Your task to perform on an android device: Open sound settings Image 0: 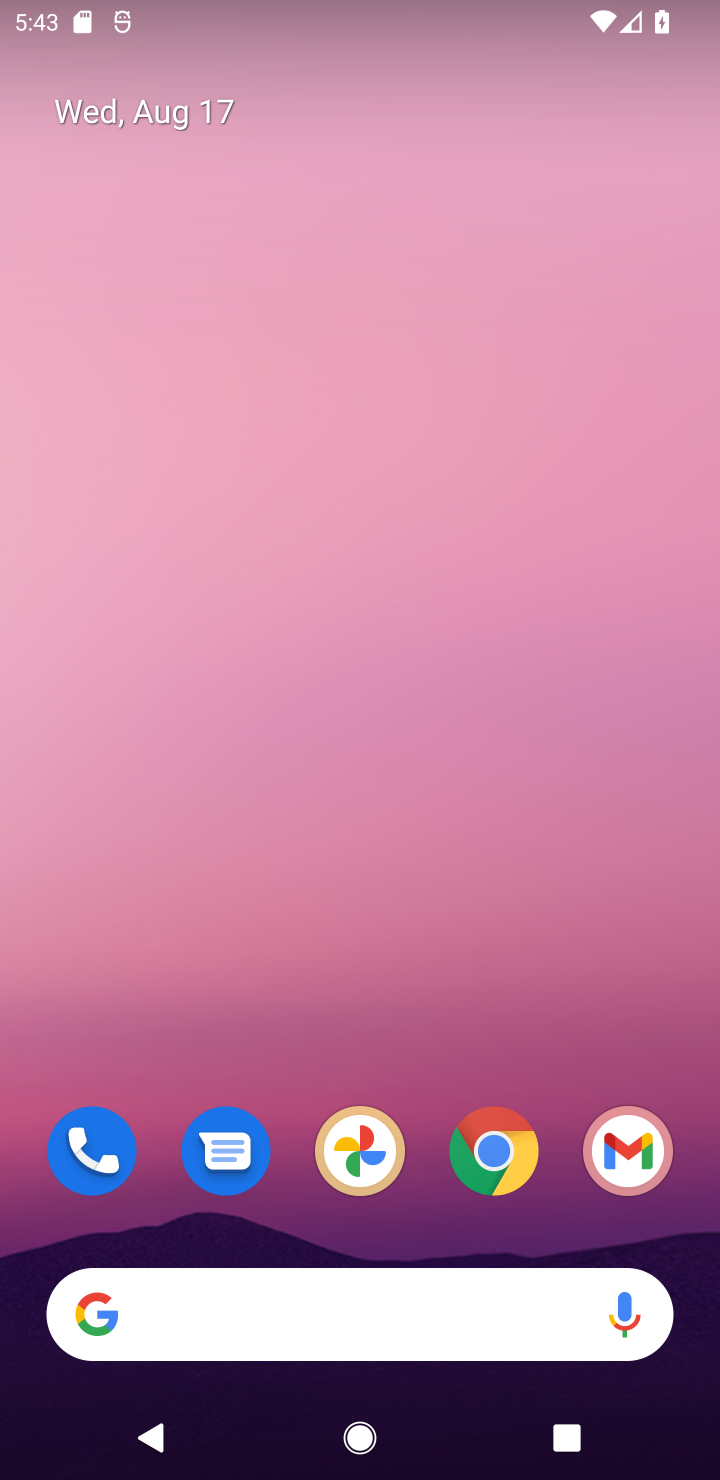
Step 0: drag from (429, 1219) to (556, 83)
Your task to perform on an android device: Open sound settings Image 1: 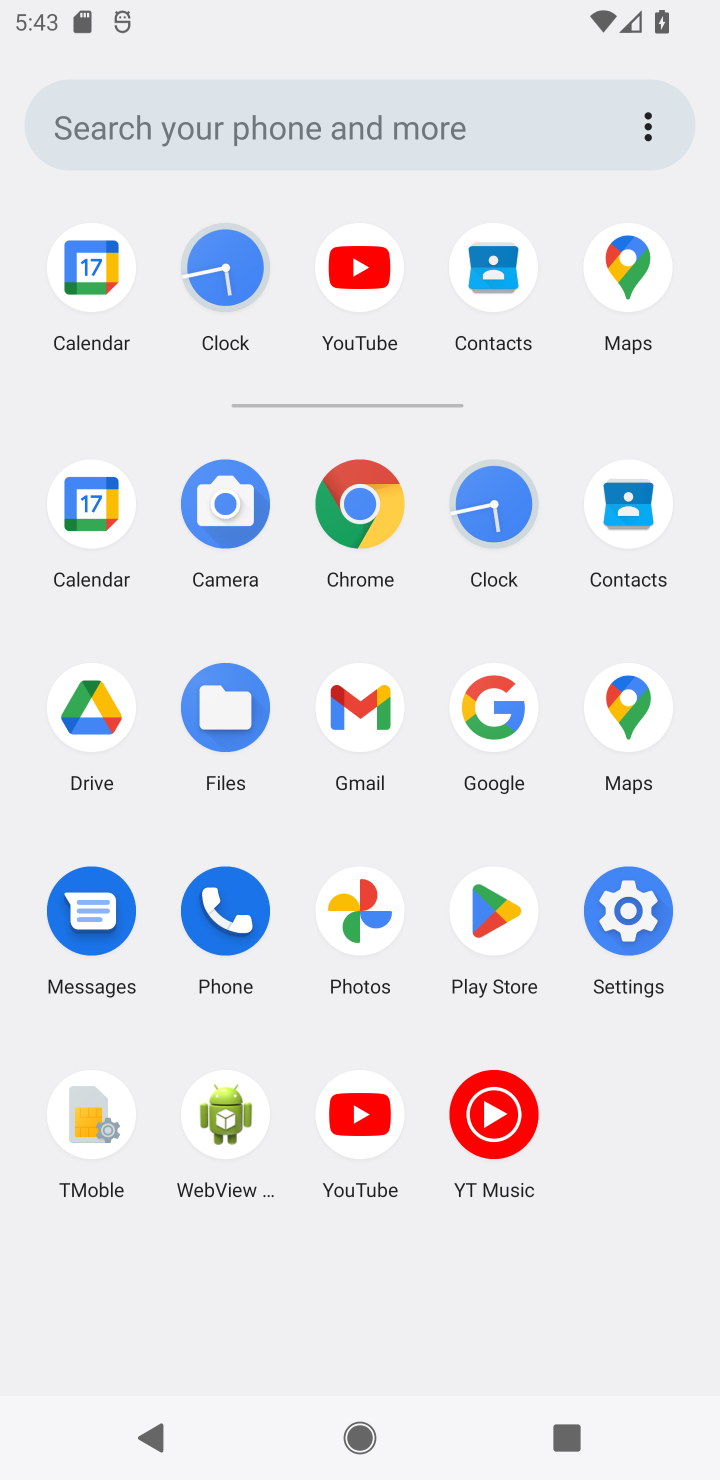
Step 1: click (610, 929)
Your task to perform on an android device: Open sound settings Image 2: 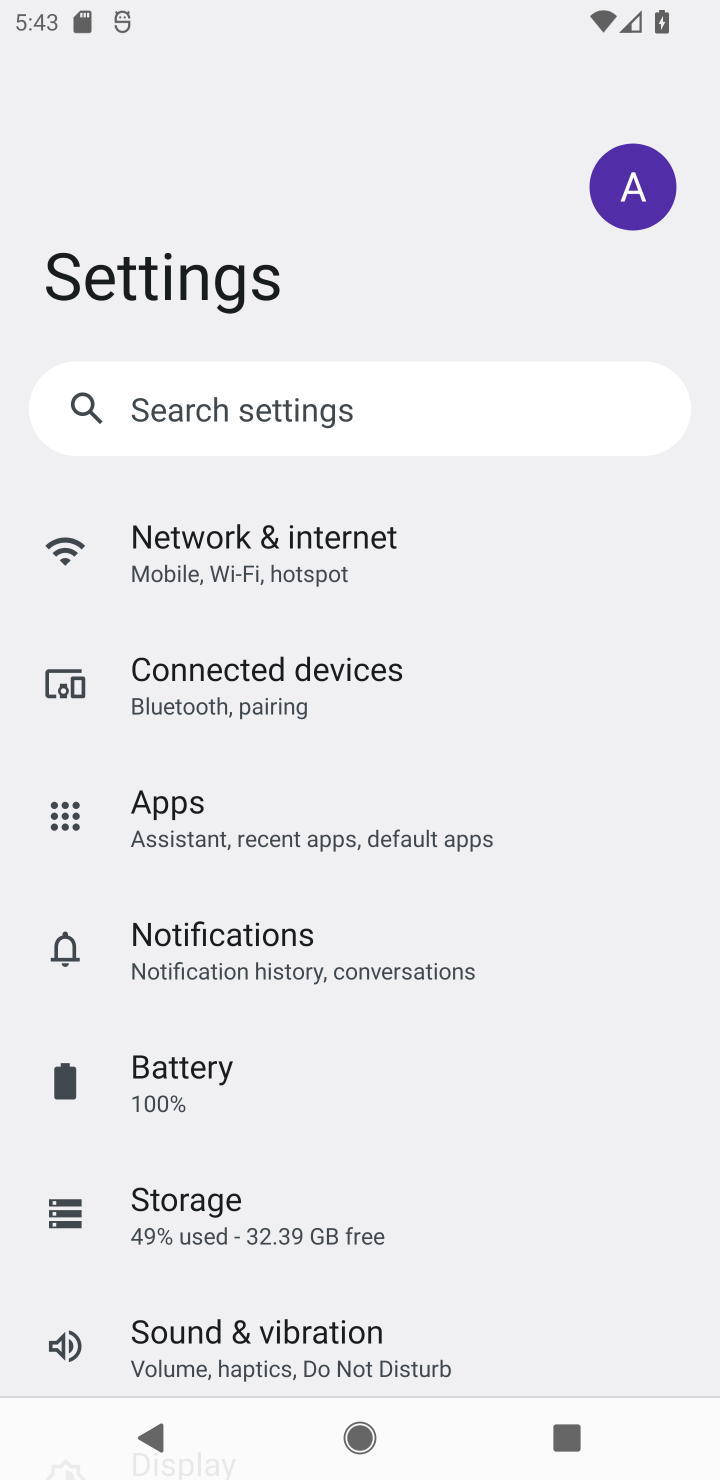
Step 2: click (411, 1311)
Your task to perform on an android device: Open sound settings Image 3: 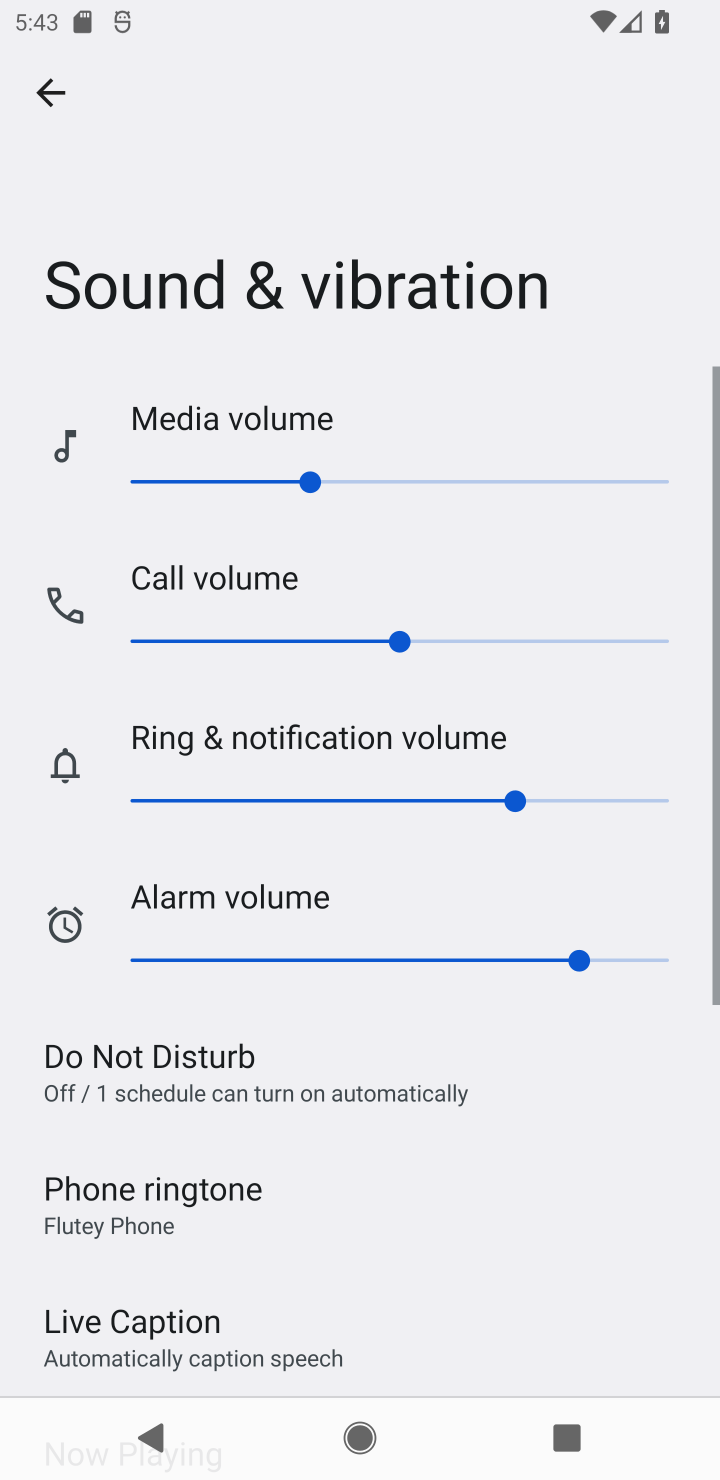
Step 3: task complete